Your task to perform on an android device: turn on javascript in the chrome app Image 0: 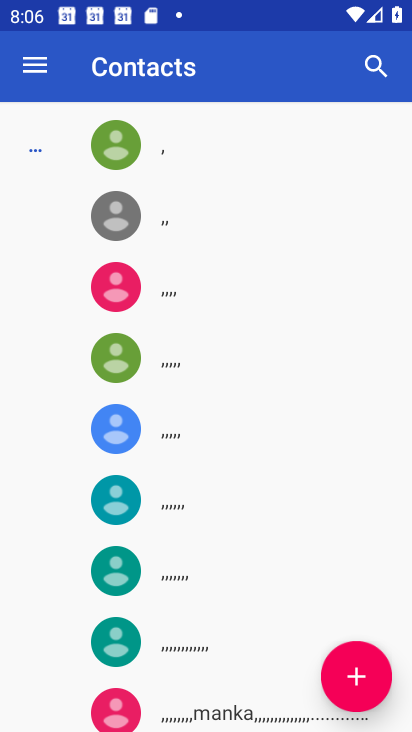
Step 0: press home button
Your task to perform on an android device: turn on javascript in the chrome app Image 1: 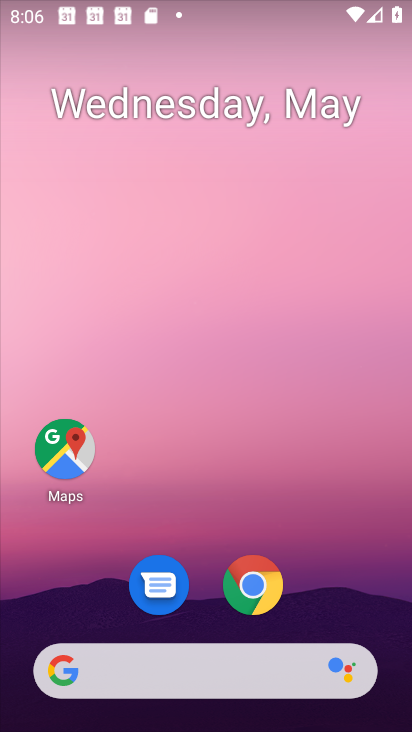
Step 1: click (252, 586)
Your task to perform on an android device: turn on javascript in the chrome app Image 2: 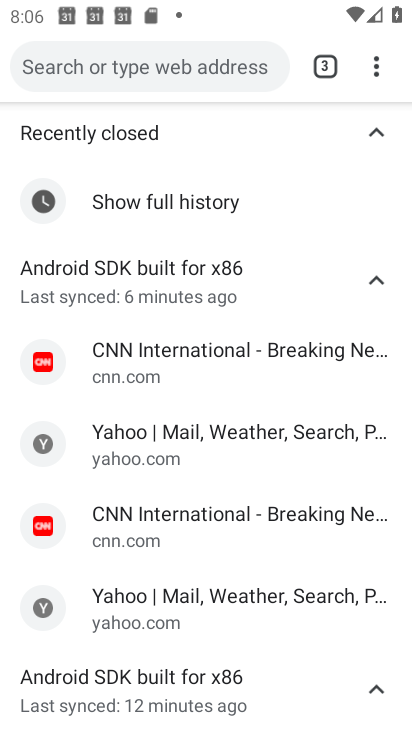
Step 2: click (372, 65)
Your task to perform on an android device: turn on javascript in the chrome app Image 3: 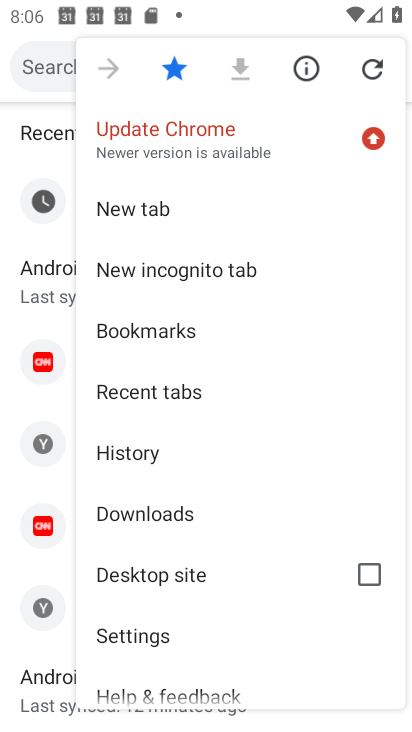
Step 3: click (168, 626)
Your task to perform on an android device: turn on javascript in the chrome app Image 4: 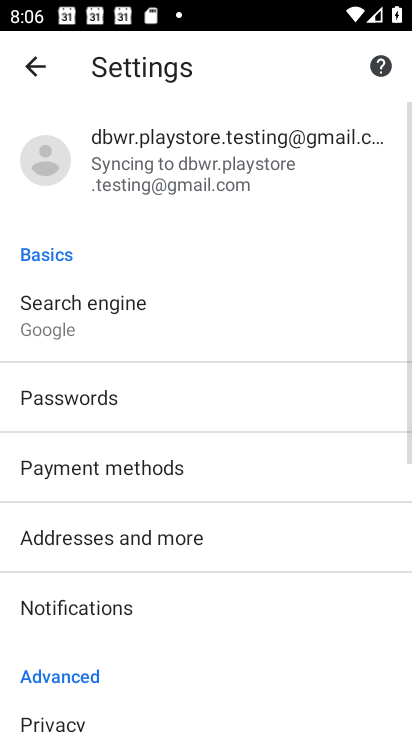
Step 4: drag from (257, 560) to (295, 248)
Your task to perform on an android device: turn on javascript in the chrome app Image 5: 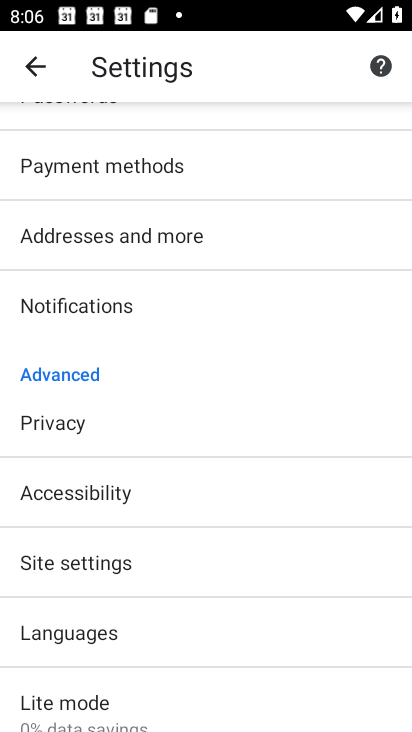
Step 5: click (226, 565)
Your task to perform on an android device: turn on javascript in the chrome app Image 6: 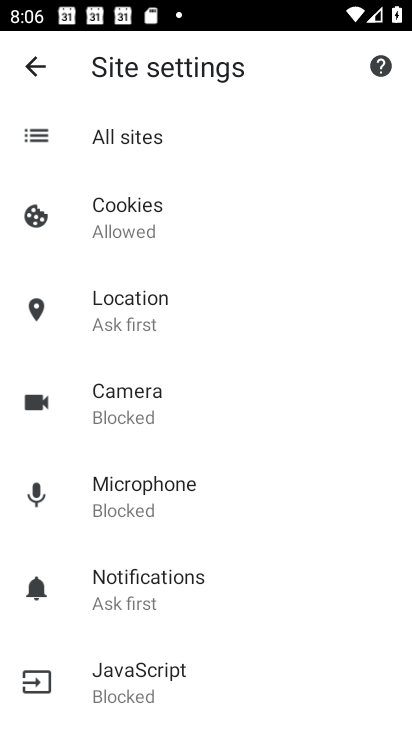
Step 6: click (222, 680)
Your task to perform on an android device: turn on javascript in the chrome app Image 7: 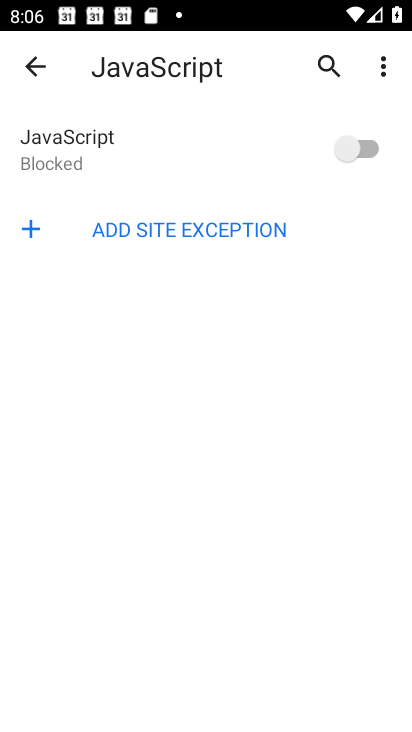
Step 7: click (357, 149)
Your task to perform on an android device: turn on javascript in the chrome app Image 8: 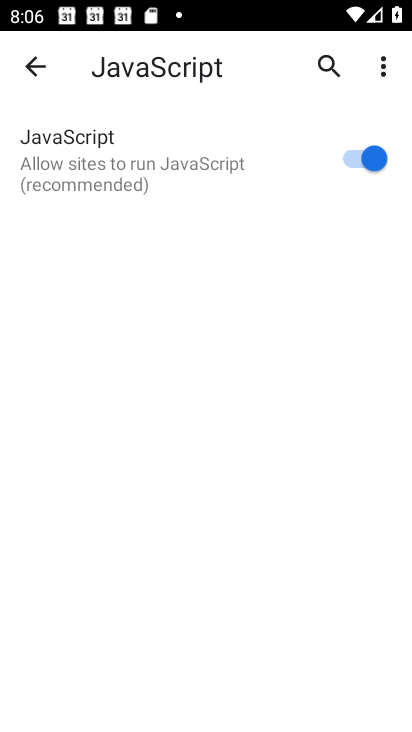
Step 8: task complete